Your task to perform on an android device: find which apps use the phone's location Image 0: 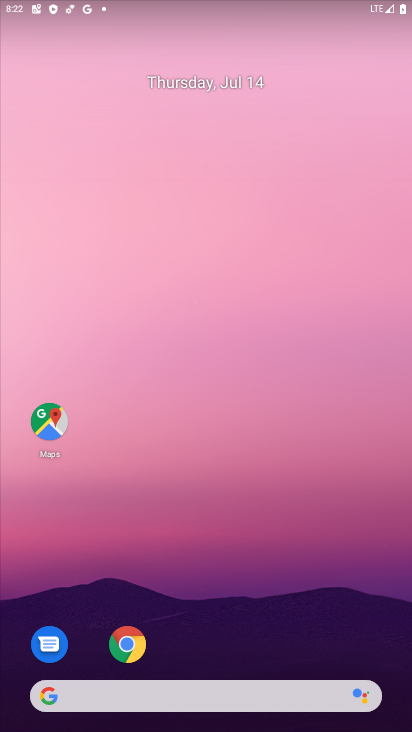
Step 0: drag from (207, 671) to (294, 84)
Your task to perform on an android device: find which apps use the phone's location Image 1: 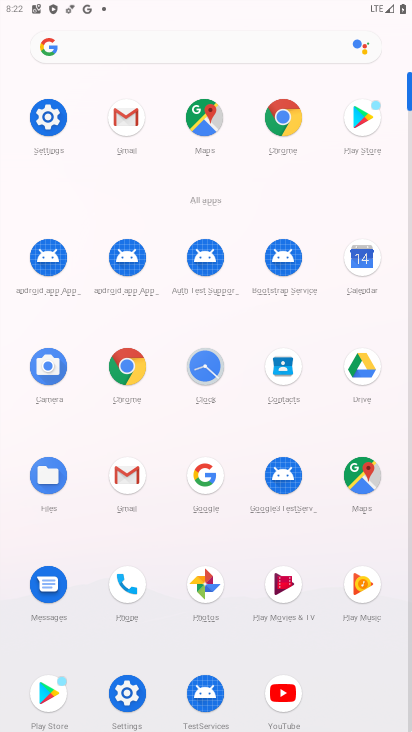
Step 1: click (117, 686)
Your task to perform on an android device: find which apps use the phone's location Image 2: 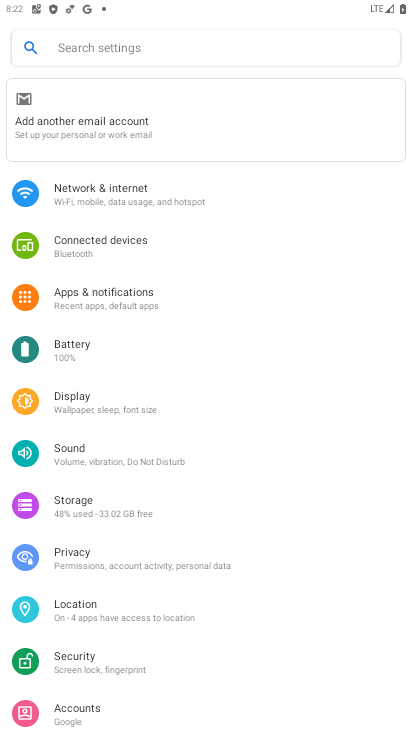
Step 2: click (138, 617)
Your task to perform on an android device: find which apps use the phone's location Image 3: 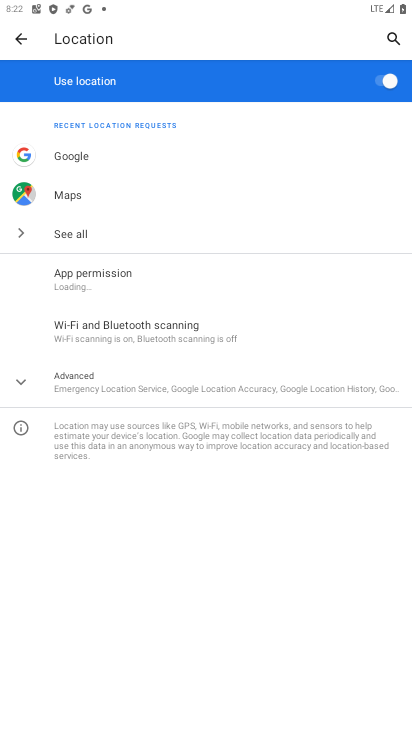
Step 3: click (154, 294)
Your task to perform on an android device: find which apps use the phone's location Image 4: 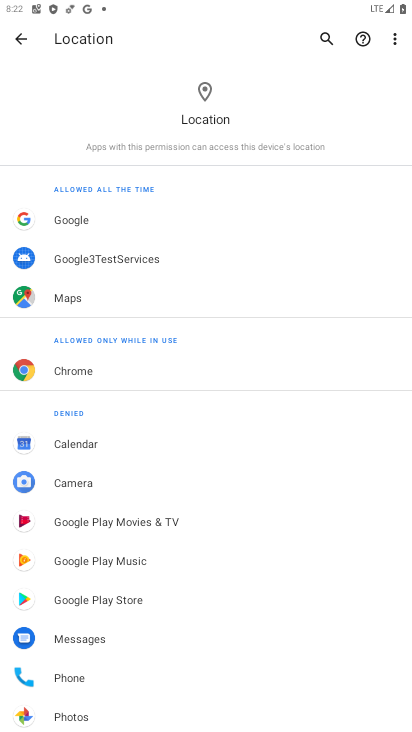
Step 4: task complete